Your task to perform on an android device: find snoozed emails in the gmail app Image 0: 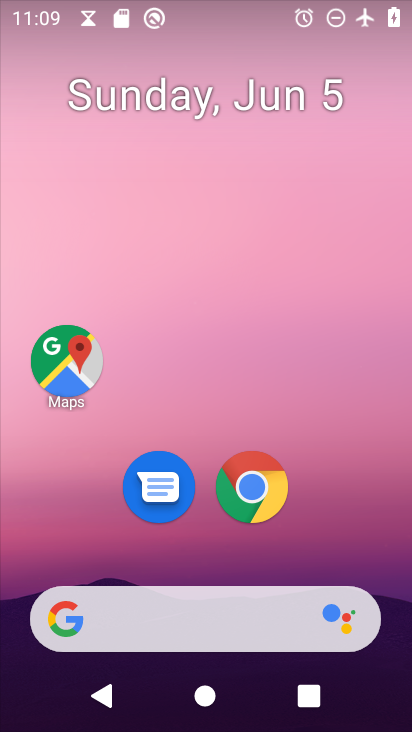
Step 0: drag from (308, 447) to (296, 197)
Your task to perform on an android device: find snoozed emails in the gmail app Image 1: 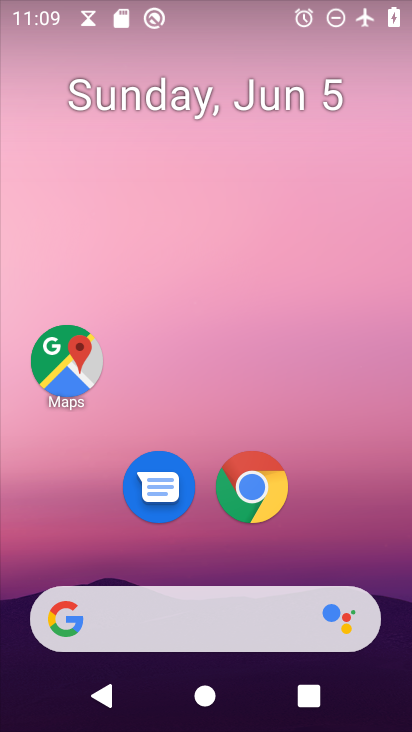
Step 1: drag from (326, 518) to (314, 242)
Your task to perform on an android device: find snoozed emails in the gmail app Image 2: 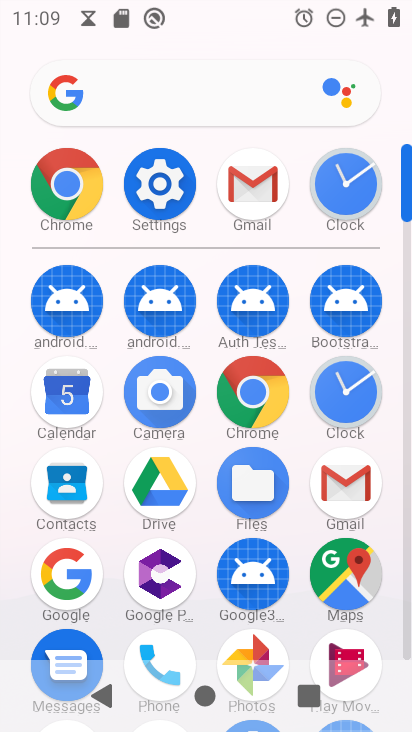
Step 2: click (242, 180)
Your task to perform on an android device: find snoozed emails in the gmail app Image 3: 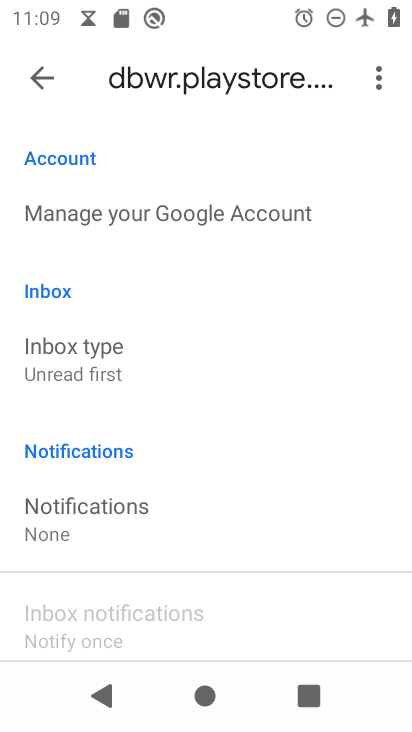
Step 3: click (48, 71)
Your task to perform on an android device: find snoozed emails in the gmail app Image 4: 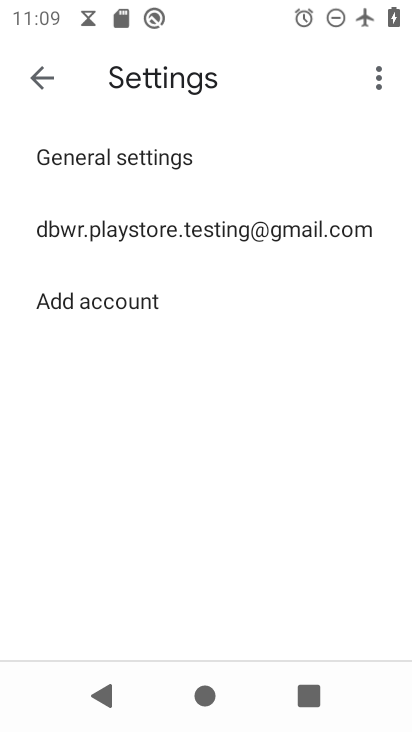
Step 4: click (44, 63)
Your task to perform on an android device: find snoozed emails in the gmail app Image 5: 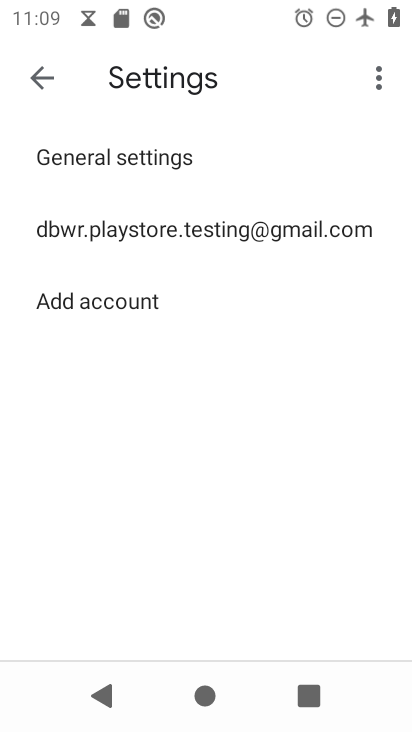
Step 5: click (44, 63)
Your task to perform on an android device: find snoozed emails in the gmail app Image 6: 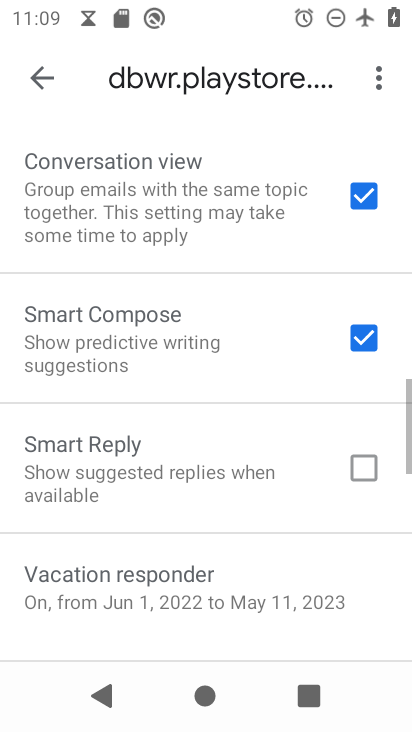
Step 6: click (52, 92)
Your task to perform on an android device: find snoozed emails in the gmail app Image 7: 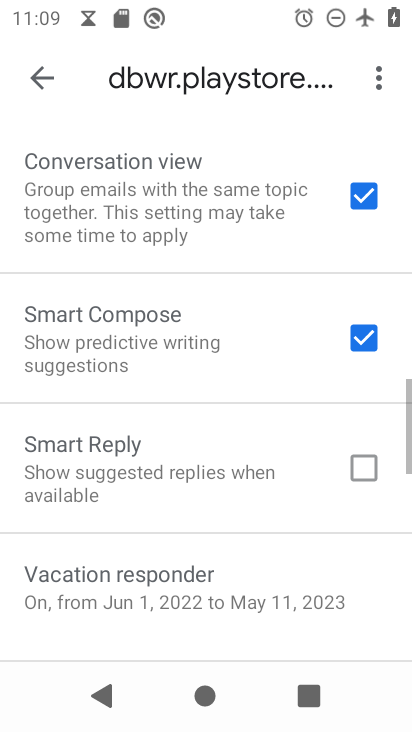
Step 7: click (42, 82)
Your task to perform on an android device: find snoozed emails in the gmail app Image 8: 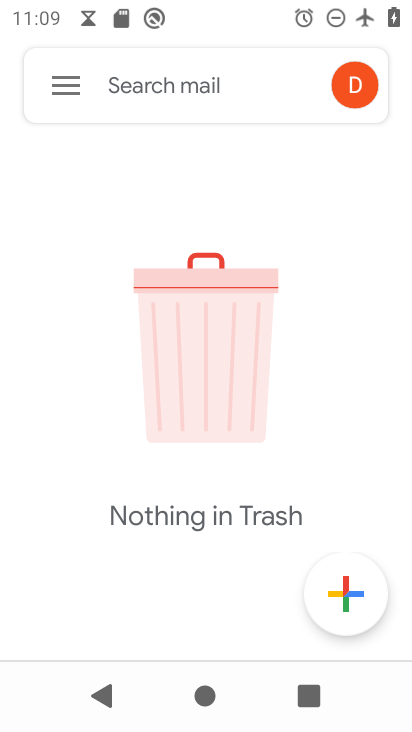
Step 8: click (43, 82)
Your task to perform on an android device: find snoozed emails in the gmail app Image 9: 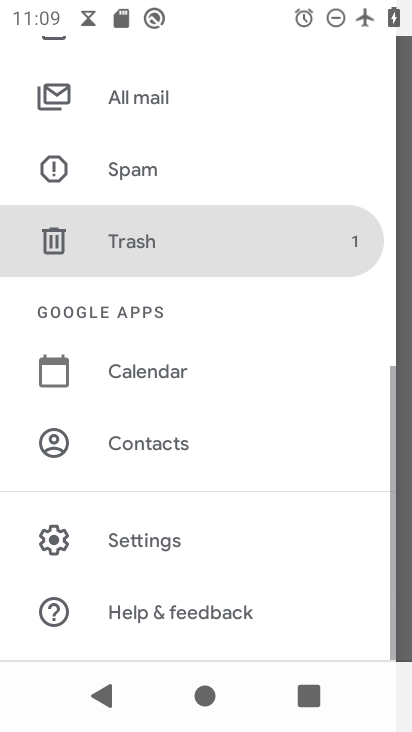
Step 9: drag from (146, 150) to (136, 577)
Your task to perform on an android device: find snoozed emails in the gmail app Image 10: 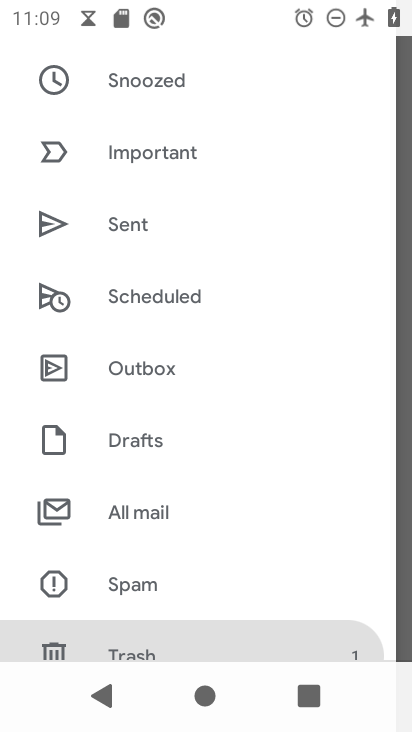
Step 10: click (141, 80)
Your task to perform on an android device: find snoozed emails in the gmail app Image 11: 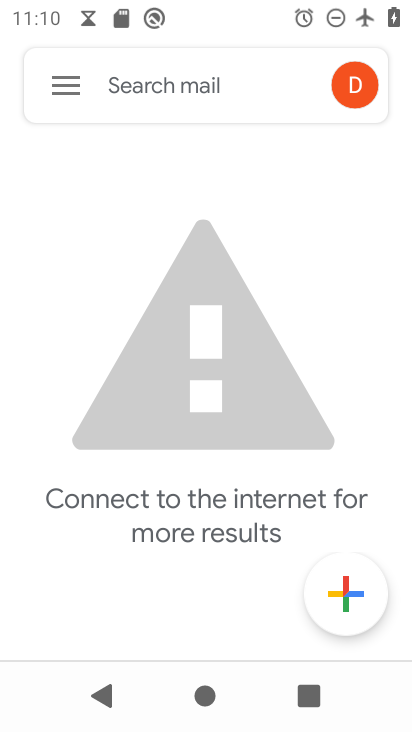
Step 11: task complete